Your task to perform on an android device: Open wifi settings Image 0: 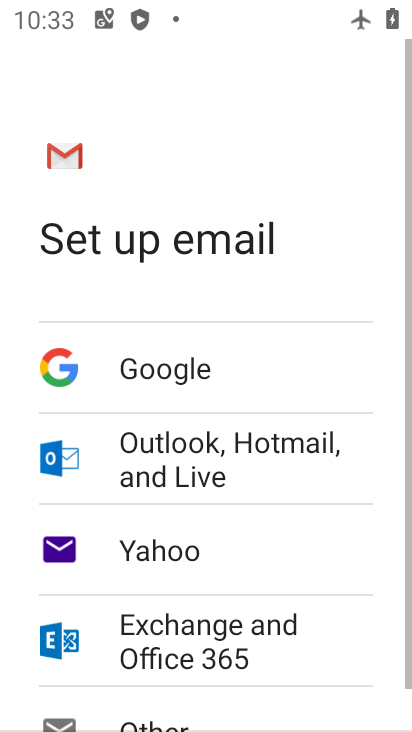
Step 0: press home button
Your task to perform on an android device: Open wifi settings Image 1: 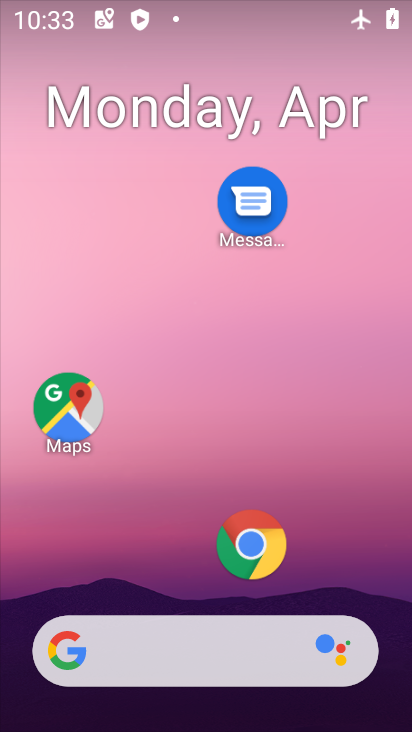
Step 1: drag from (258, 10) to (230, 555)
Your task to perform on an android device: Open wifi settings Image 2: 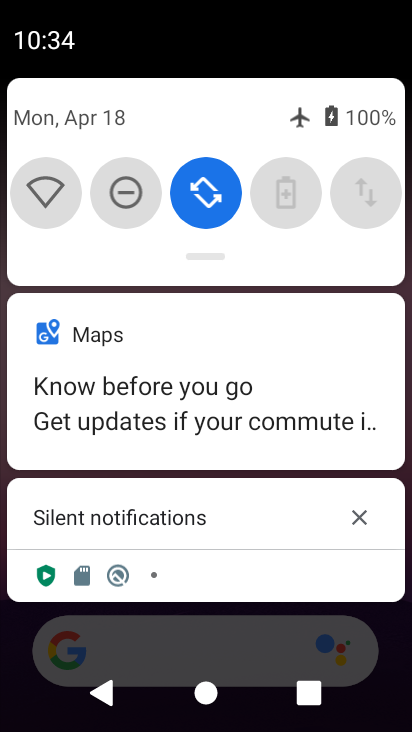
Step 2: drag from (220, 646) to (255, 168)
Your task to perform on an android device: Open wifi settings Image 3: 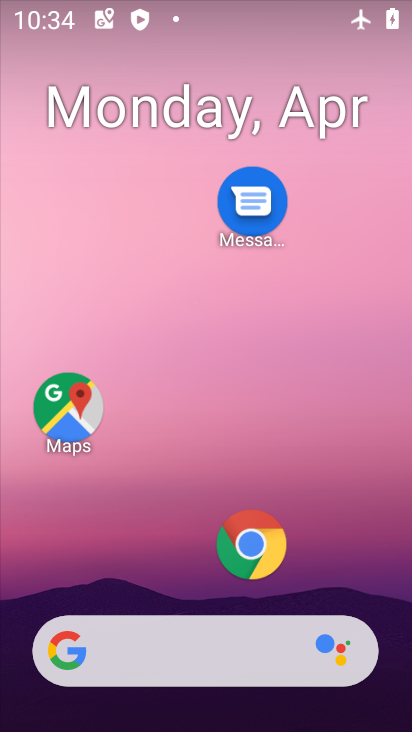
Step 3: drag from (181, 529) to (193, 42)
Your task to perform on an android device: Open wifi settings Image 4: 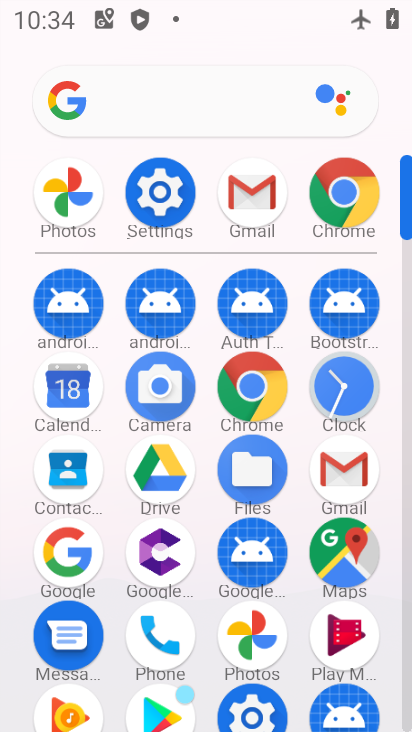
Step 4: click (156, 186)
Your task to perform on an android device: Open wifi settings Image 5: 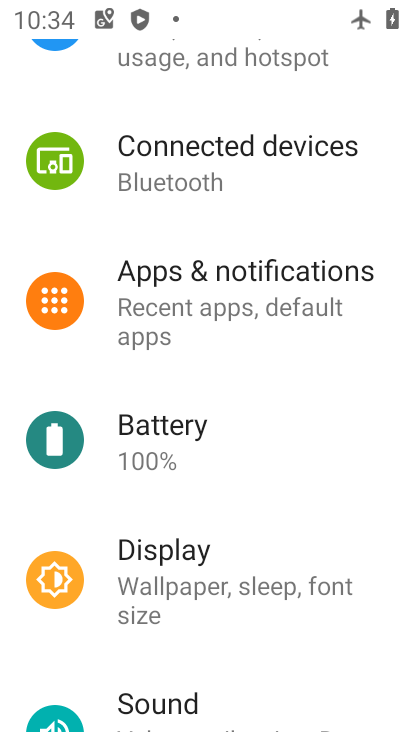
Step 5: drag from (216, 205) to (221, 720)
Your task to perform on an android device: Open wifi settings Image 6: 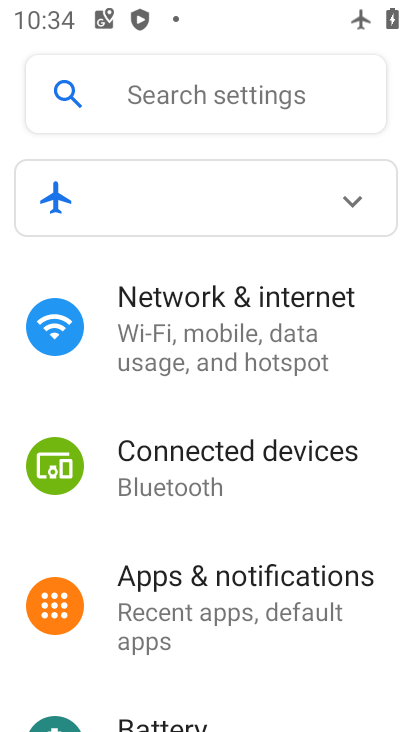
Step 6: click (106, 335)
Your task to perform on an android device: Open wifi settings Image 7: 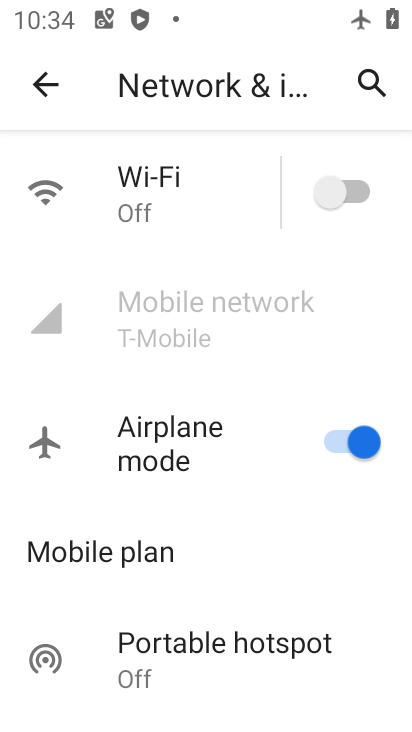
Step 7: click (206, 200)
Your task to perform on an android device: Open wifi settings Image 8: 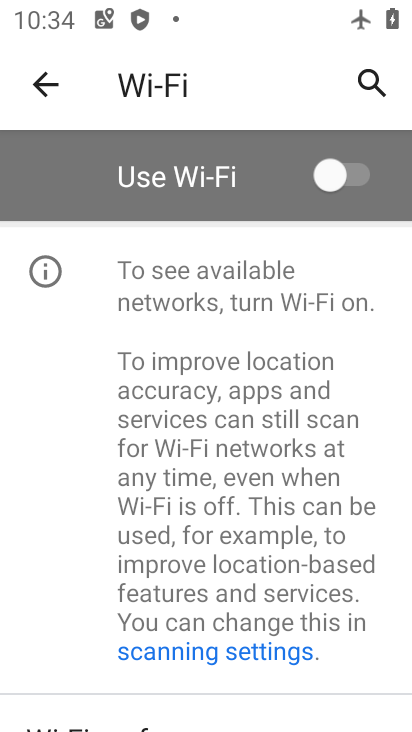
Step 8: click (341, 175)
Your task to perform on an android device: Open wifi settings Image 9: 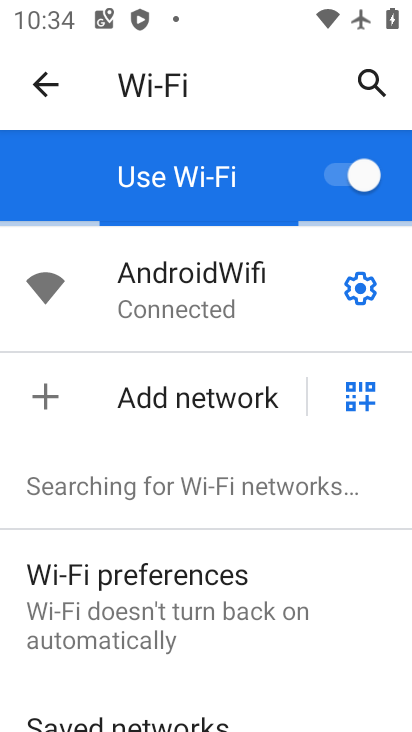
Step 9: task complete